Your task to perform on an android device: open chrome and create a bookmark for the current page Image 0: 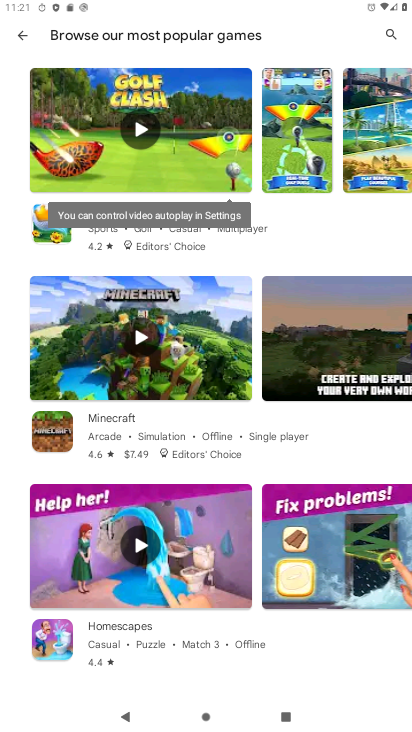
Step 0: press home button
Your task to perform on an android device: open chrome and create a bookmark for the current page Image 1: 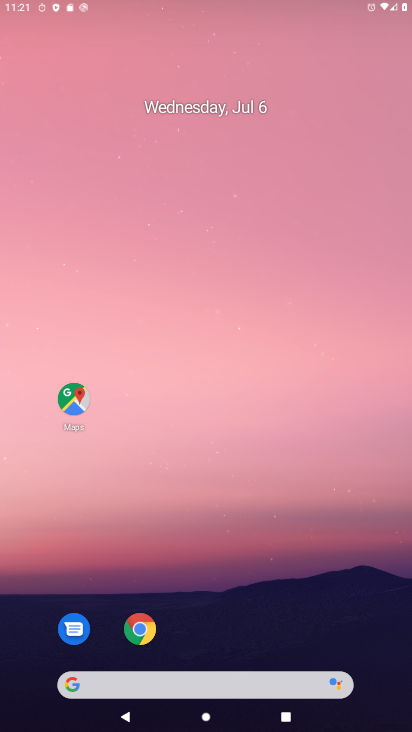
Step 1: drag from (197, 647) to (248, 118)
Your task to perform on an android device: open chrome and create a bookmark for the current page Image 2: 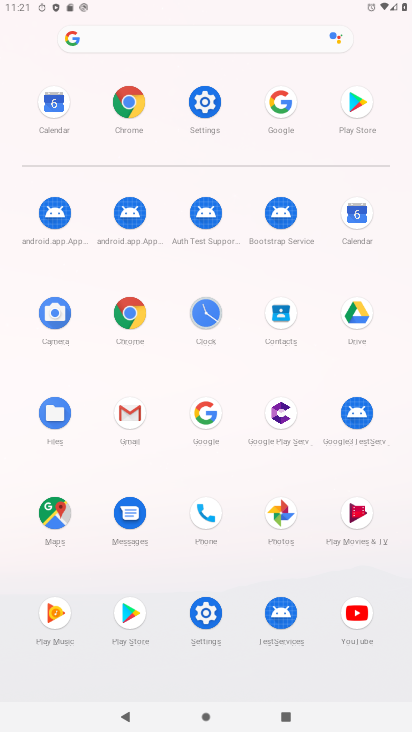
Step 2: click (132, 100)
Your task to perform on an android device: open chrome and create a bookmark for the current page Image 3: 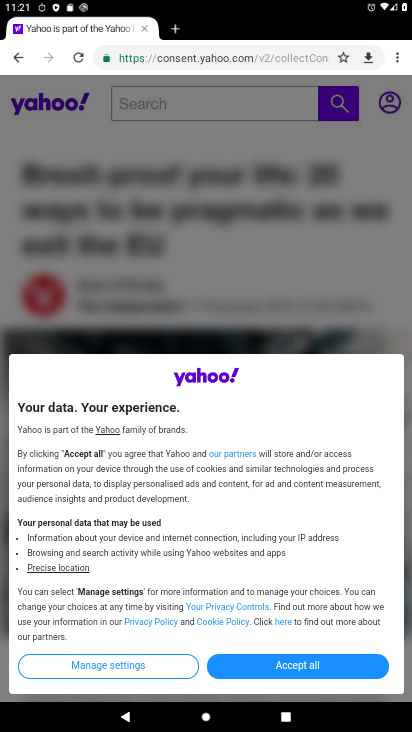
Step 3: click (396, 57)
Your task to perform on an android device: open chrome and create a bookmark for the current page Image 4: 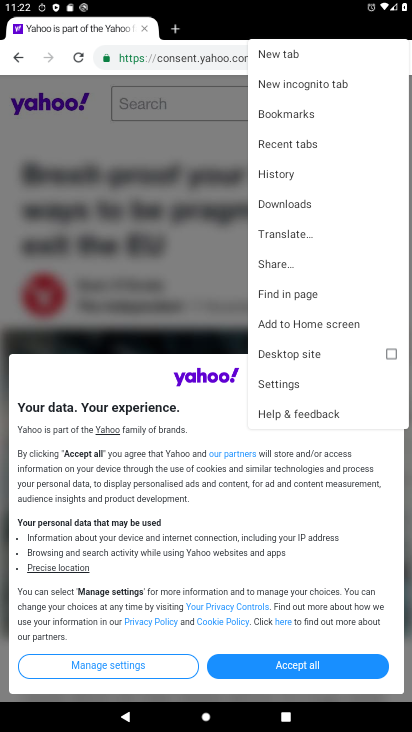
Step 4: drag from (296, 387) to (408, 335)
Your task to perform on an android device: open chrome and create a bookmark for the current page Image 5: 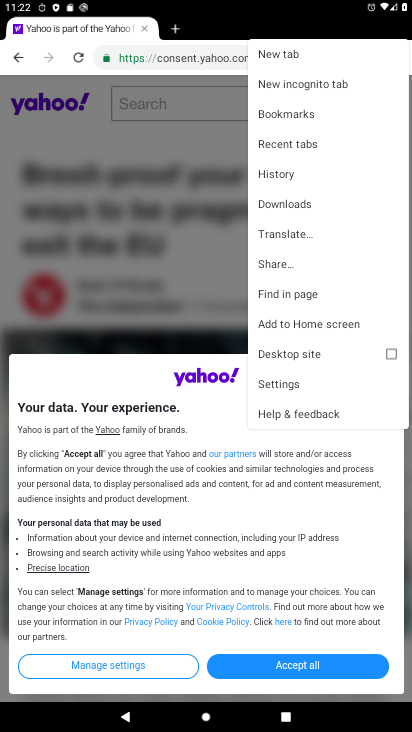
Step 5: click (184, 90)
Your task to perform on an android device: open chrome and create a bookmark for the current page Image 6: 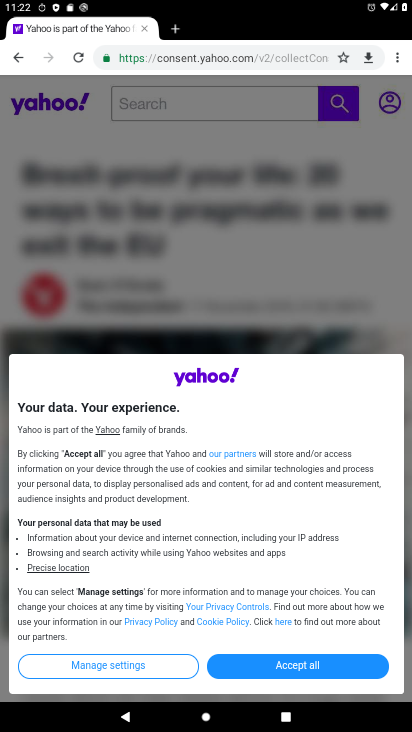
Step 6: click (340, 56)
Your task to perform on an android device: open chrome and create a bookmark for the current page Image 7: 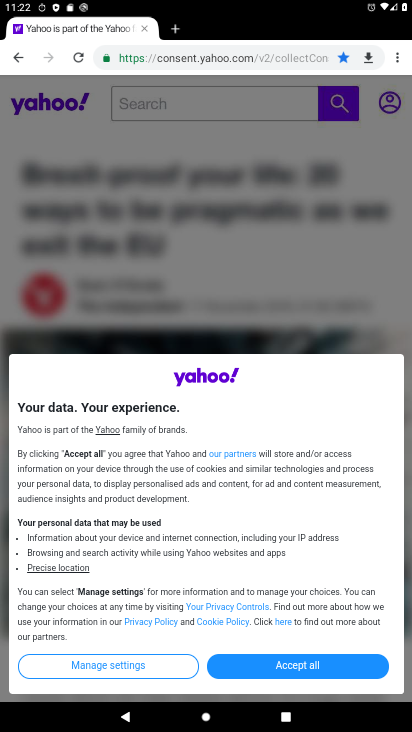
Step 7: task complete